Your task to perform on an android device: Add acer nitro to the cart on costco.com Image 0: 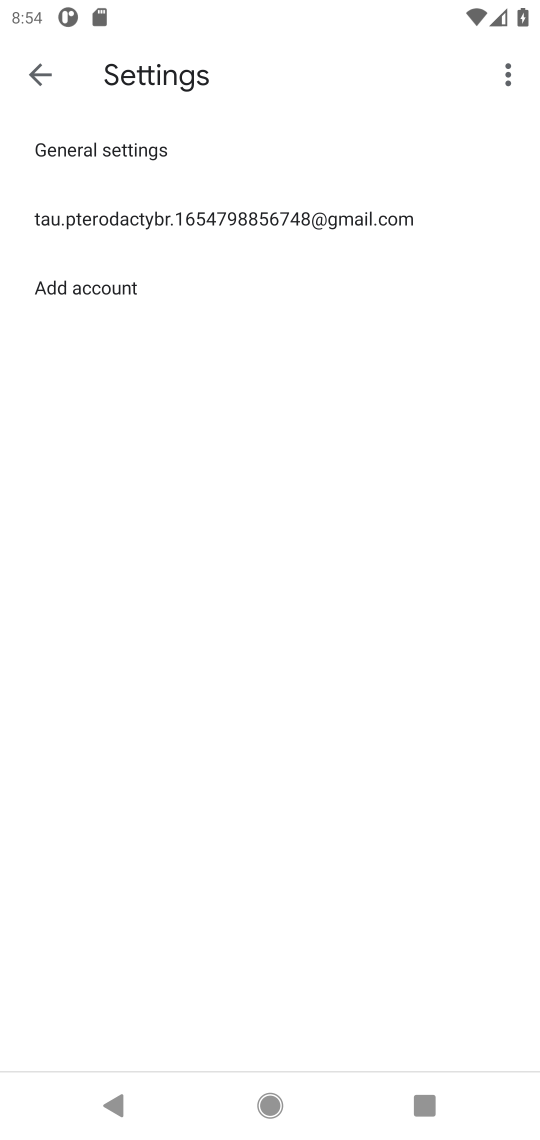
Step 0: press home button
Your task to perform on an android device: Add acer nitro to the cart on costco.com Image 1: 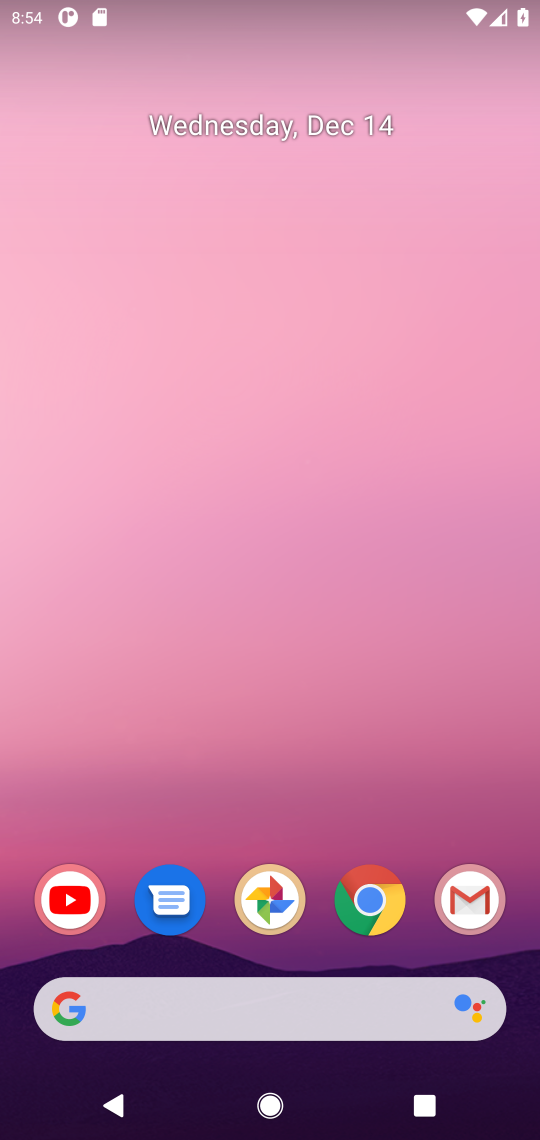
Step 1: click (246, 1006)
Your task to perform on an android device: Add acer nitro to the cart on costco.com Image 2: 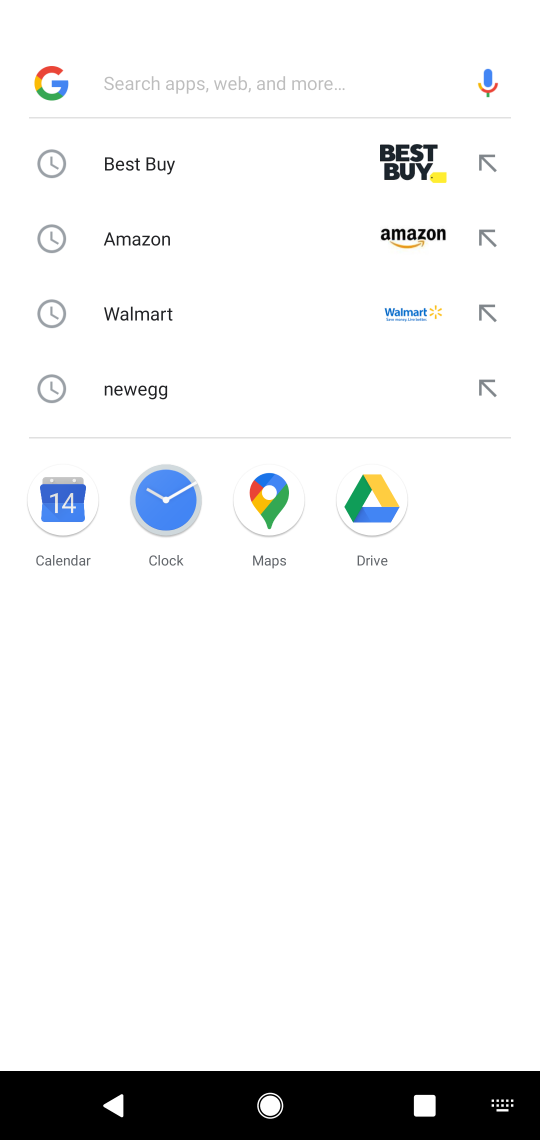
Step 2: type "costco.com"
Your task to perform on an android device: Add acer nitro to the cart on costco.com Image 3: 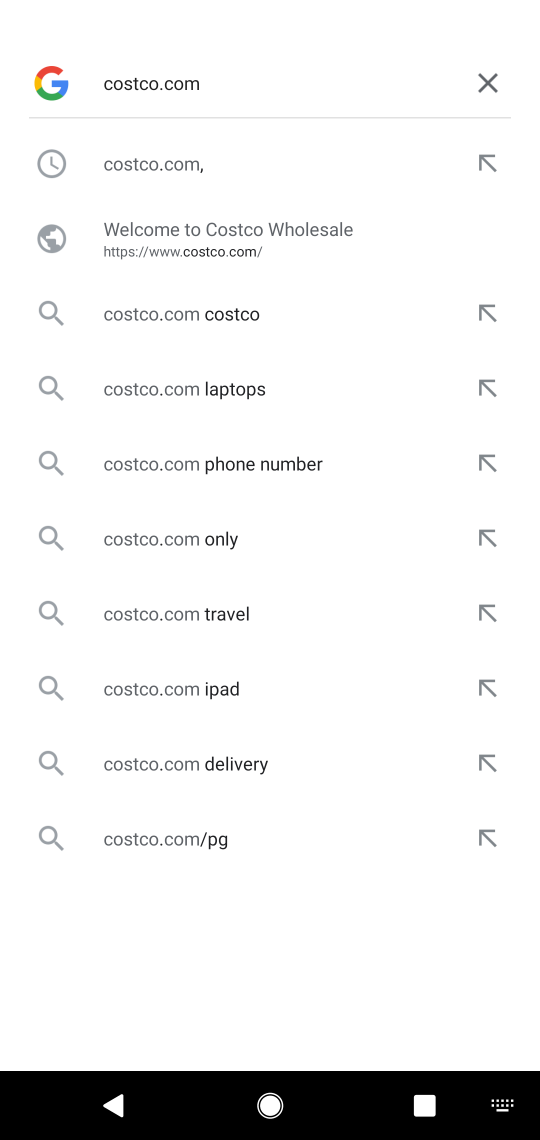
Step 3: type ""
Your task to perform on an android device: Add acer nitro to the cart on costco.com Image 4: 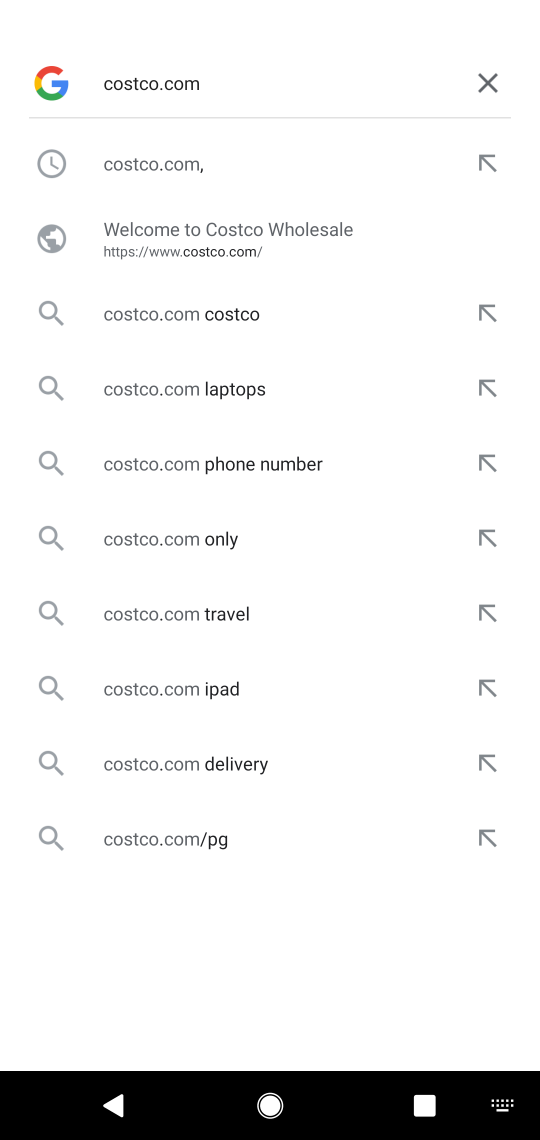
Step 4: click (158, 179)
Your task to perform on an android device: Add acer nitro to the cart on costco.com Image 5: 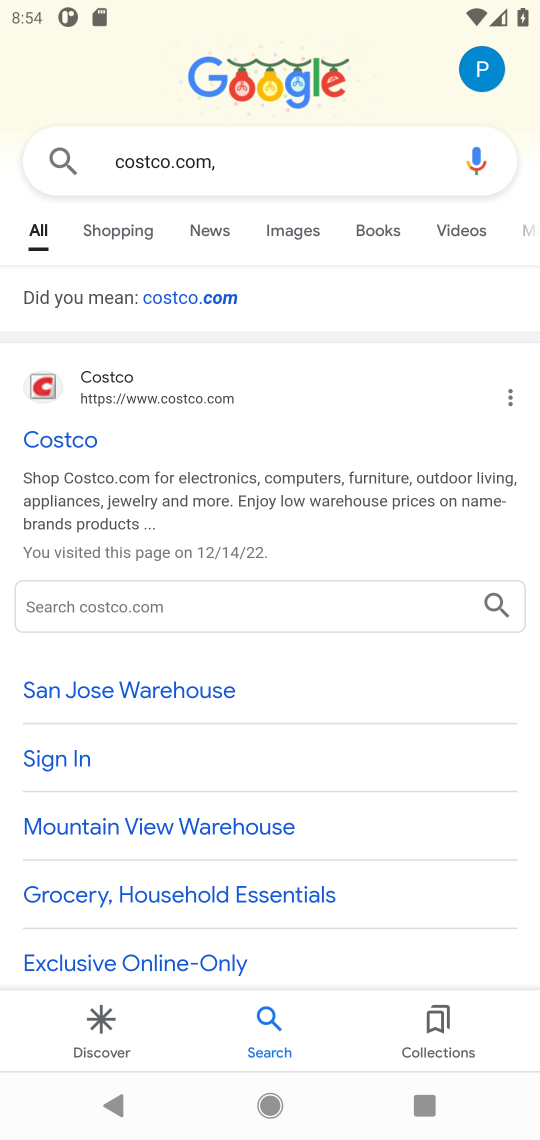
Step 5: click (13, 393)
Your task to perform on an android device: Add acer nitro to the cart on costco.com Image 6: 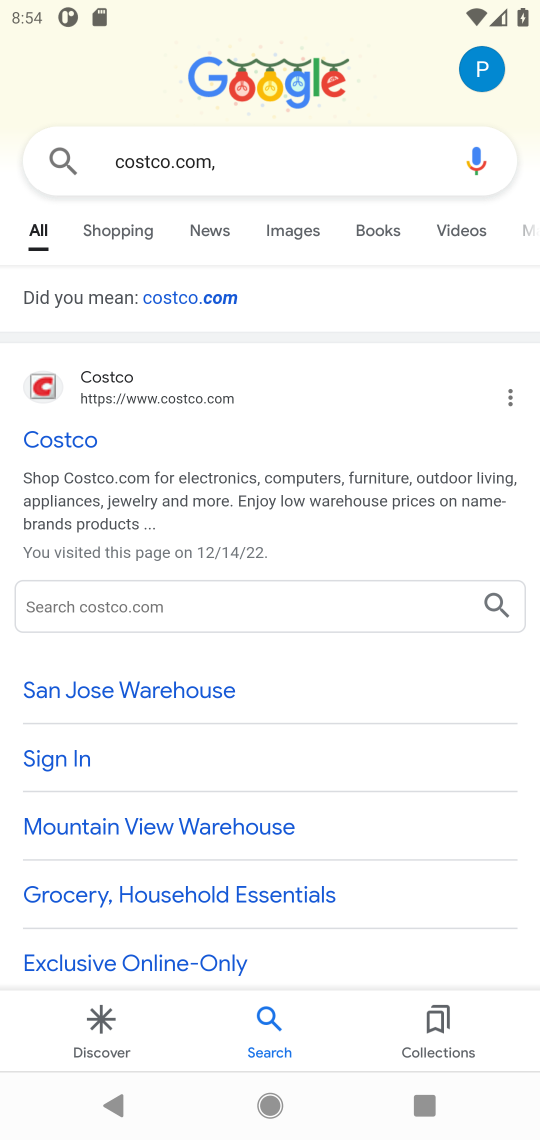
Step 6: click (63, 451)
Your task to perform on an android device: Add acer nitro to the cart on costco.com Image 7: 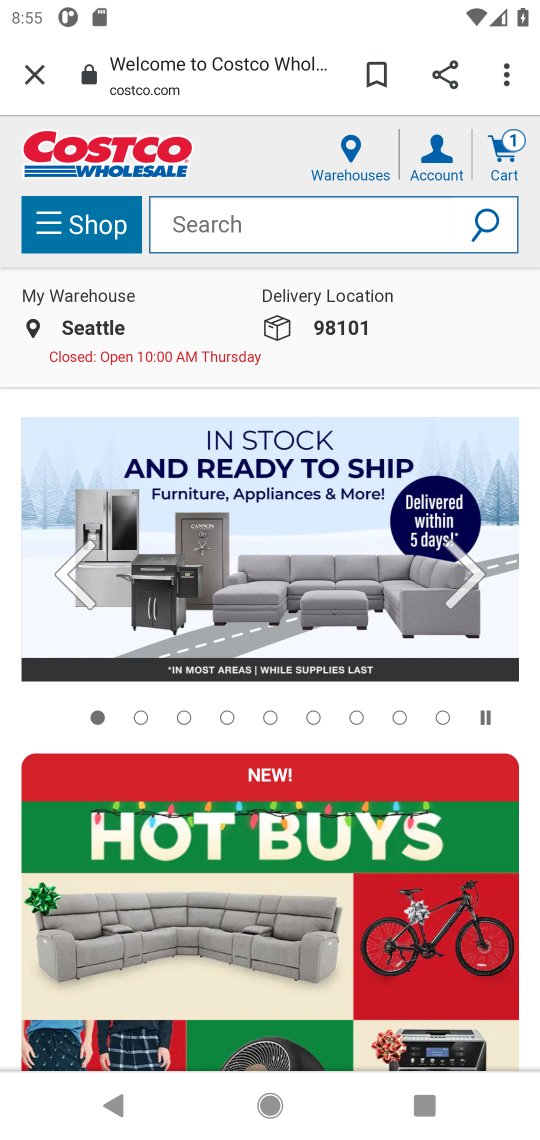
Step 7: click (330, 201)
Your task to perform on an android device: Add acer nitro to the cart on costco.com Image 8: 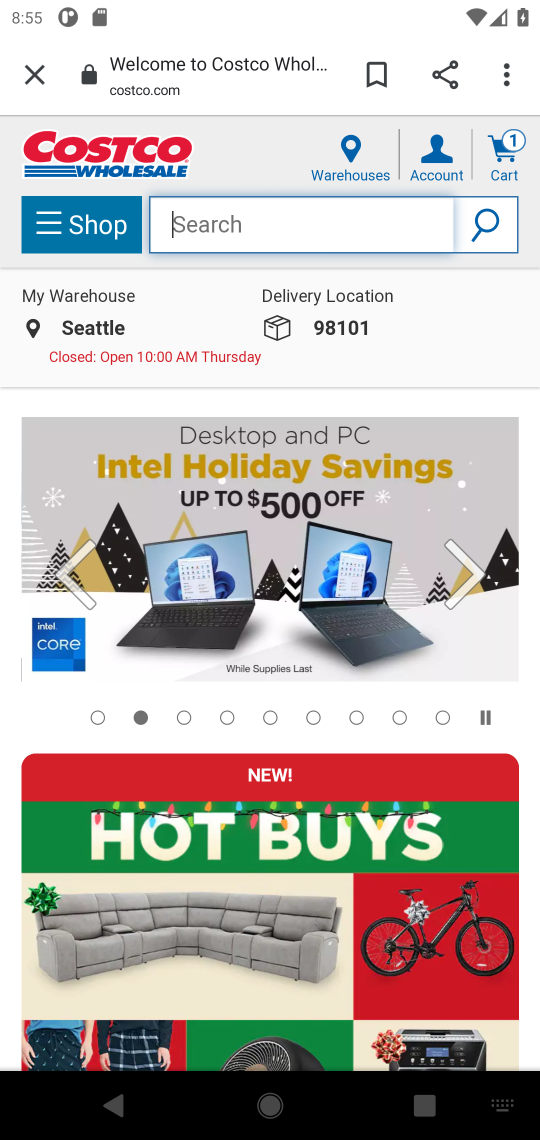
Step 8: type "acer nitro"
Your task to perform on an android device: Add acer nitro to the cart on costco.com Image 9: 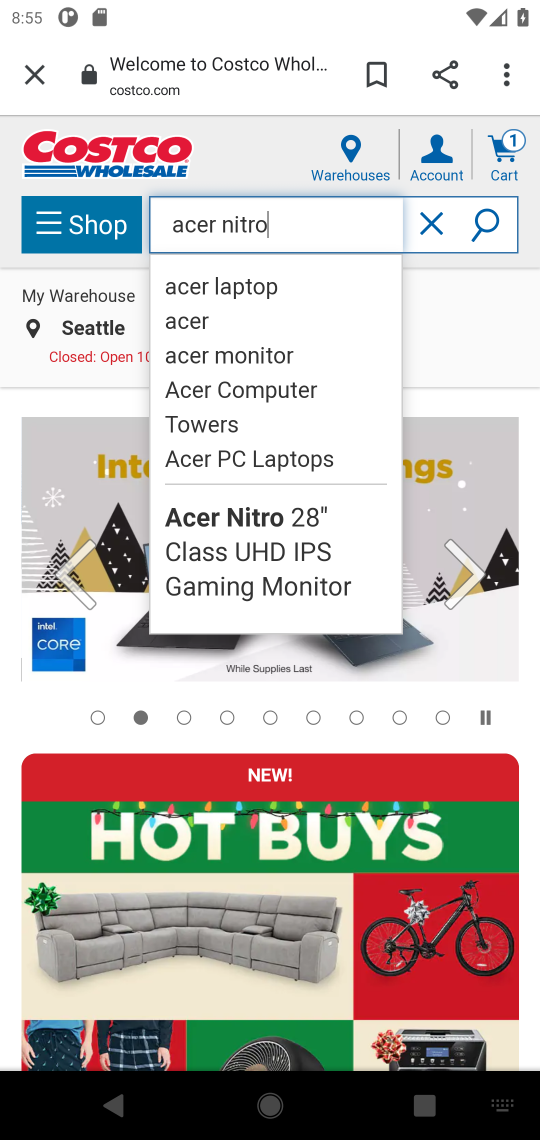
Step 9: click (503, 231)
Your task to perform on an android device: Add acer nitro to the cart on costco.com Image 10: 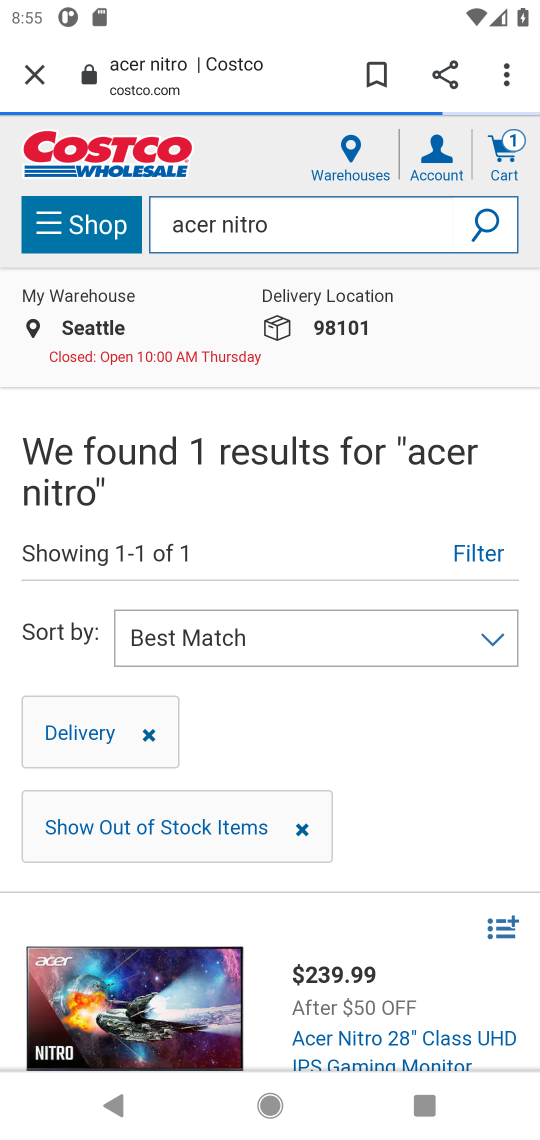
Step 10: drag from (367, 755) to (338, 403)
Your task to perform on an android device: Add acer nitro to the cart on costco.com Image 11: 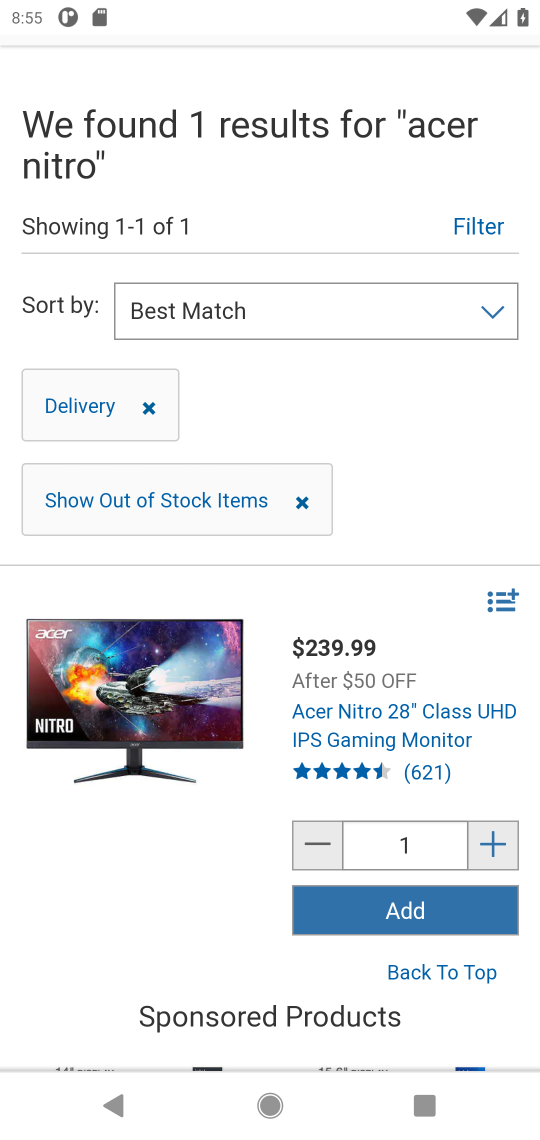
Step 11: click (456, 889)
Your task to perform on an android device: Add acer nitro to the cart on costco.com Image 12: 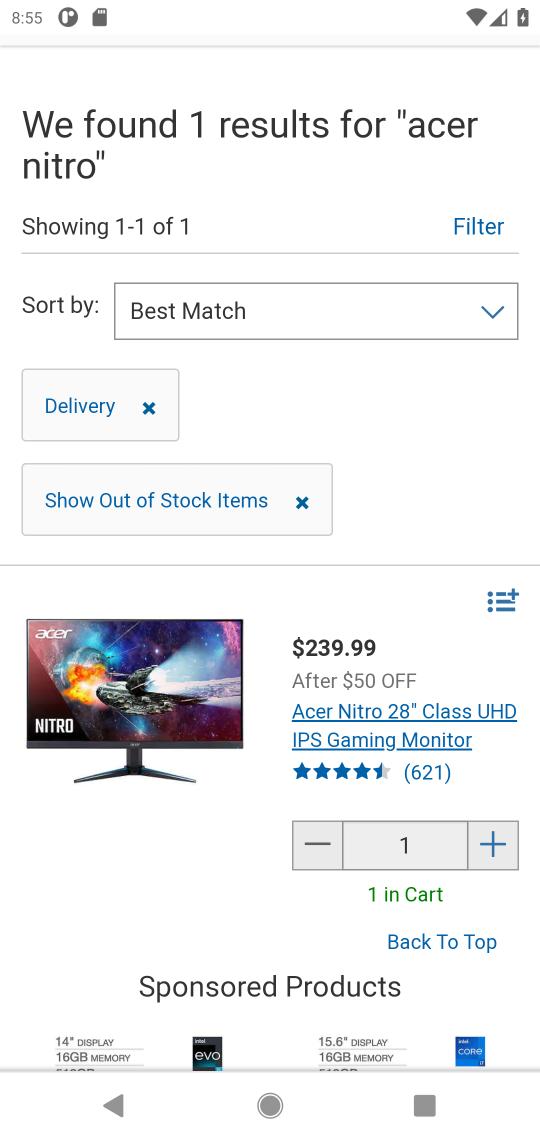
Step 12: task complete